Your task to perform on an android device: Open Google Maps Image 0: 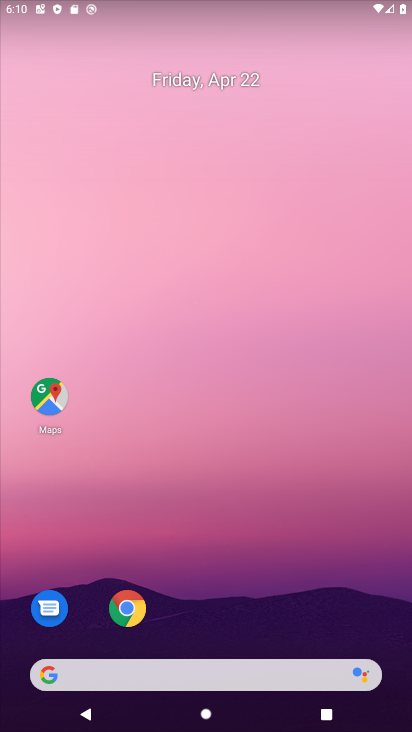
Step 0: click (46, 411)
Your task to perform on an android device: Open Google Maps Image 1: 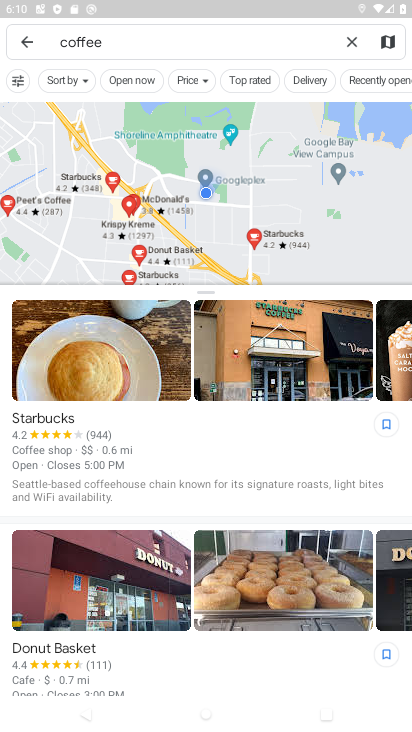
Step 1: task complete